Your task to perform on an android device: check android version Image 0: 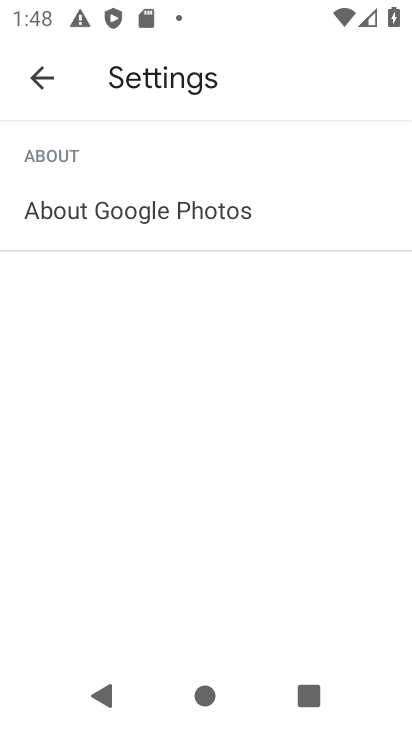
Step 0: press home button
Your task to perform on an android device: check android version Image 1: 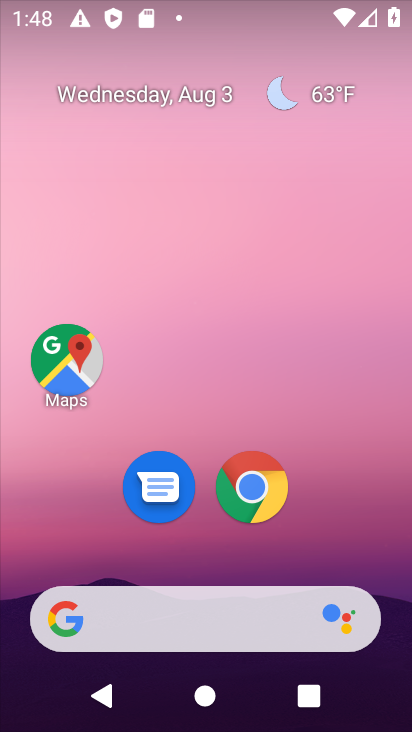
Step 1: drag from (329, 546) to (348, 30)
Your task to perform on an android device: check android version Image 2: 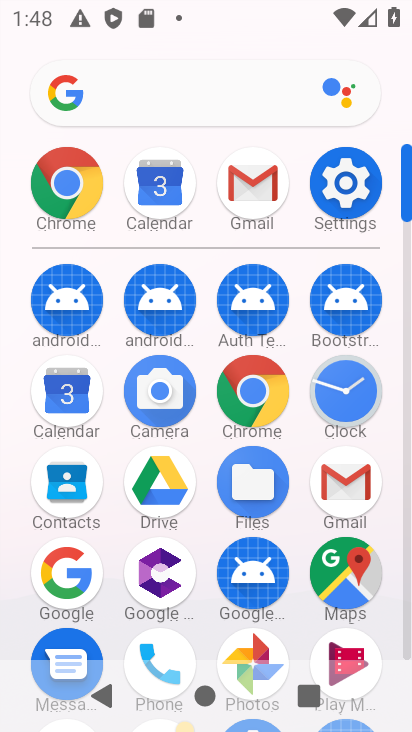
Step 2: click (344, 183)
Your task to perform on an android device: check android version Image 3: 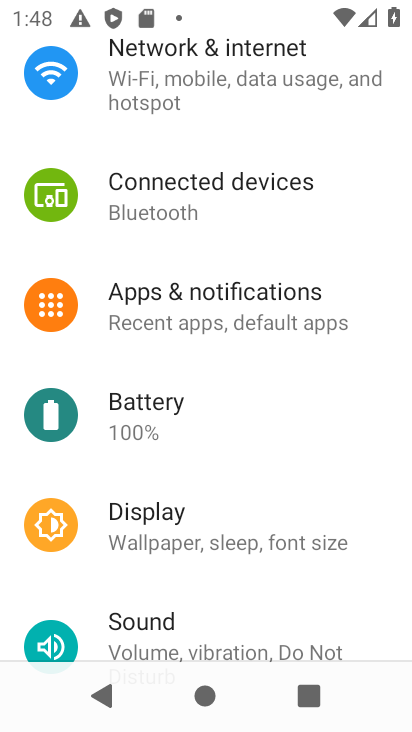
Step 3: drag from (291, 597) to (325, 116)
Your task to perform on an android device: check android version Image 4: 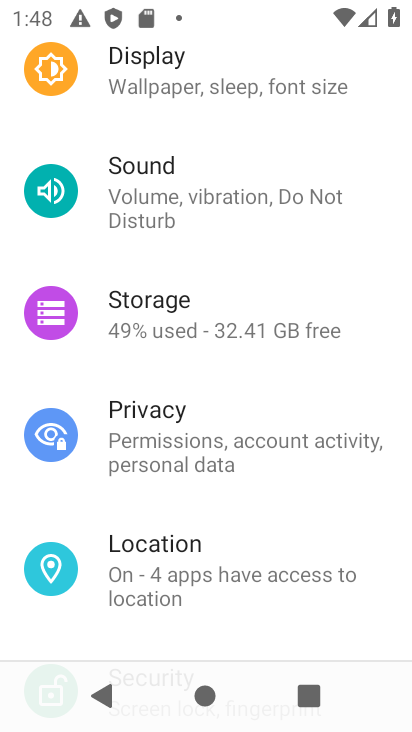
Step 4: drag from (280, 543) to (332, 164)
Your task to perform on an android device: check android version Image 5: 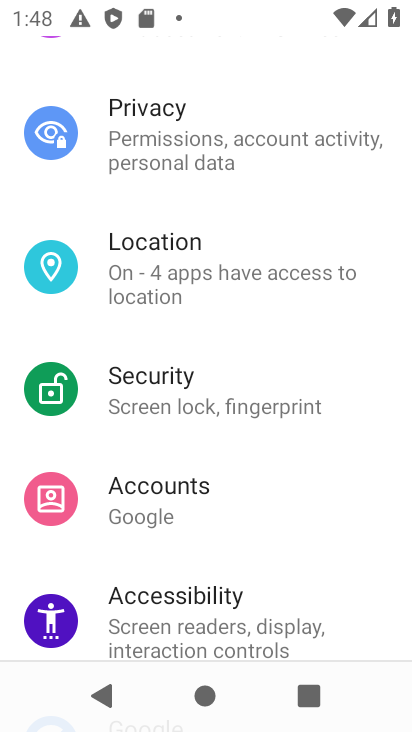
Step 5: drag from (288, 559) to (324, 85)
Your task to perform on an android device: check android version Image 6: 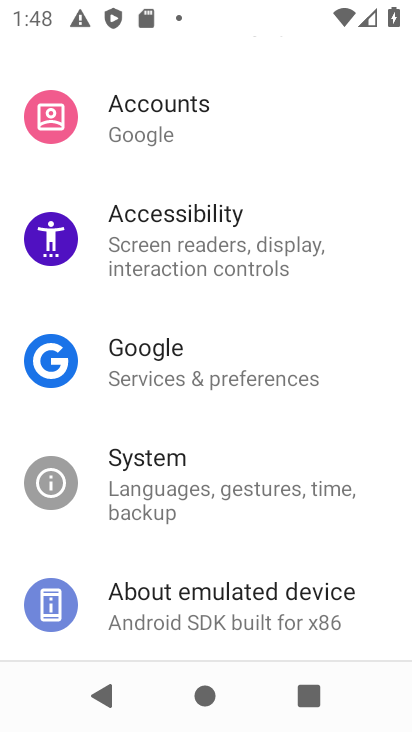
Step 6: drag from (243, 610) to (296, 101)
Your task to perform on an android device: check android version Image 7: 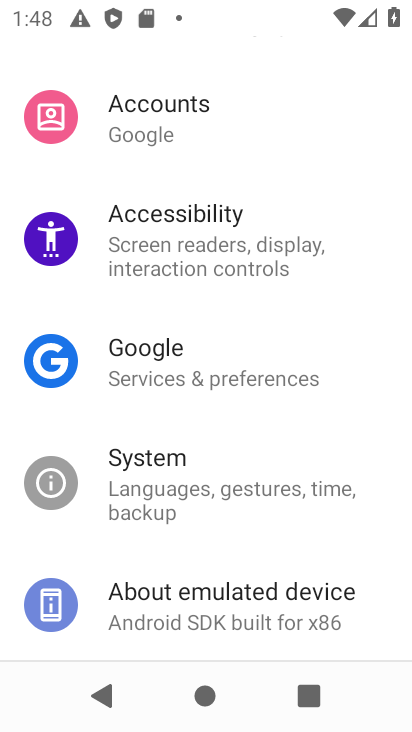
Step 7: click (177, 621)
Your task to perform on an android device: check android version Image 8: 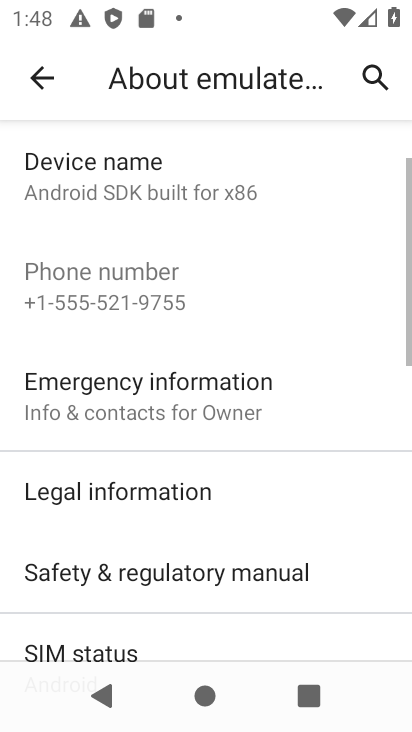
Step 8: drag from (268, 591) to (396, 142)
Your task to perform on an android device: check android version Image 9: 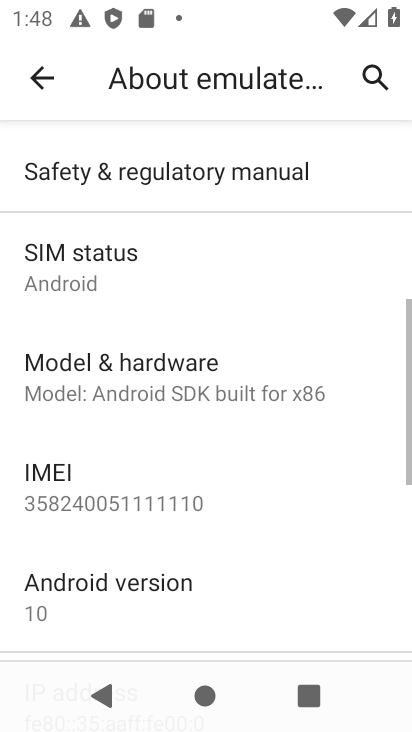
Step 9: click (102, 566)
Your task to perform on an android device: check android version Image 10: 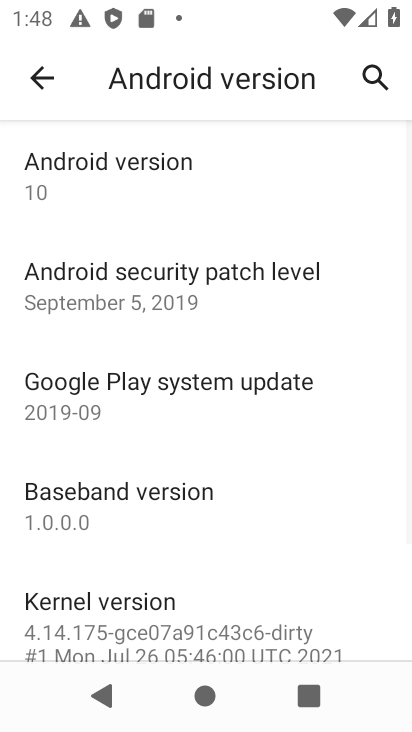
Step 10: click (117, 185)
Your task to perform on an android device: check android version Image 11: 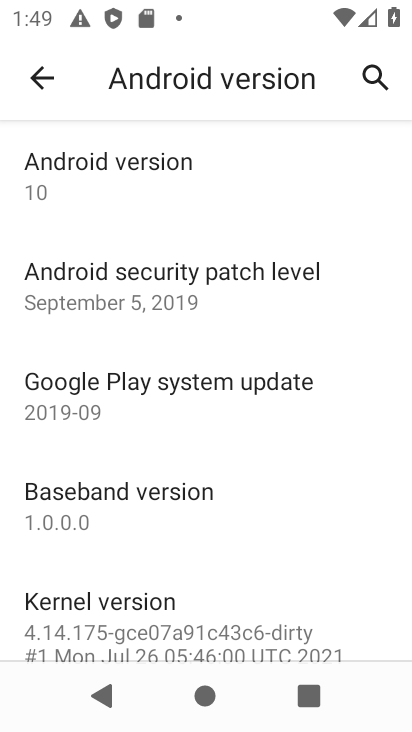
Step 11: task complete